Your task to perform on an android device: set default search engine in the chrome app Image 0: 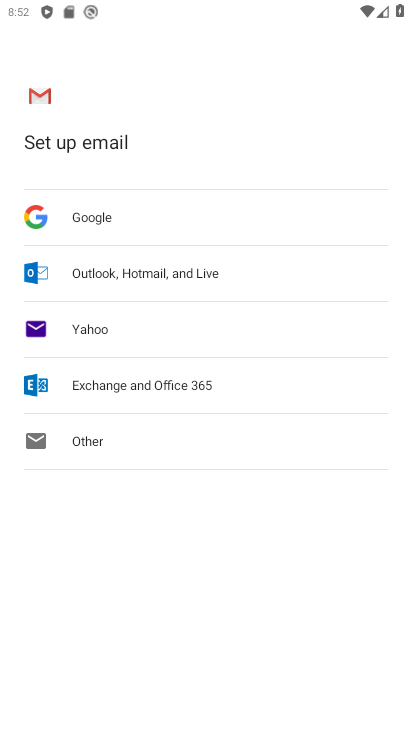
Step 0: press home button
Your task to perform on an android device: set default search engine in the chrome app Image 1: 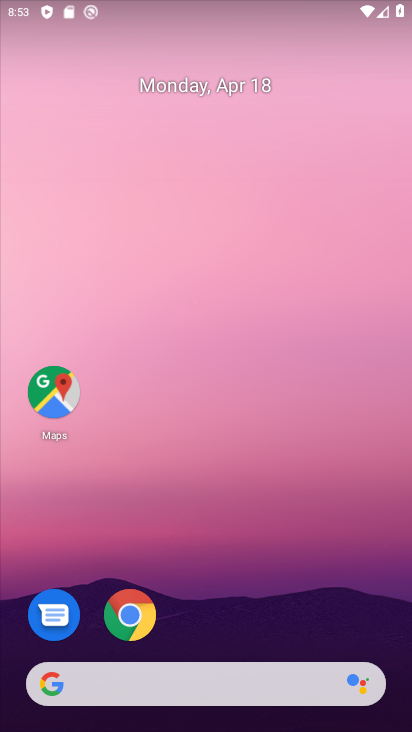
Step 1: click (137, 613)
Your task to perform on an android device: set default search engine in the chrome app Image 2: 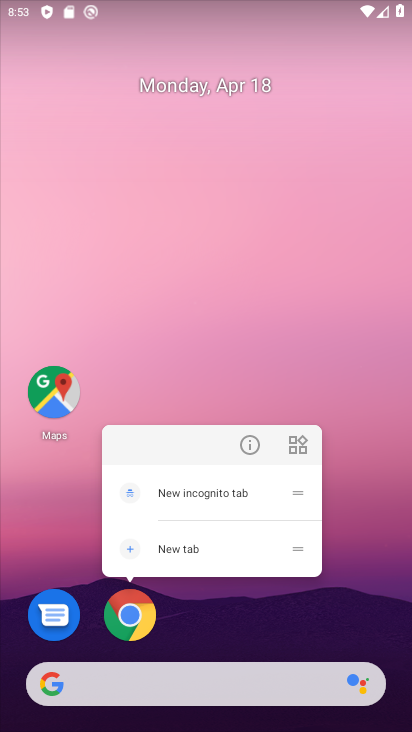
Step 2: click (126, 615)
Your task to perform on an android device: set default search engine in the chrome app Image 3: 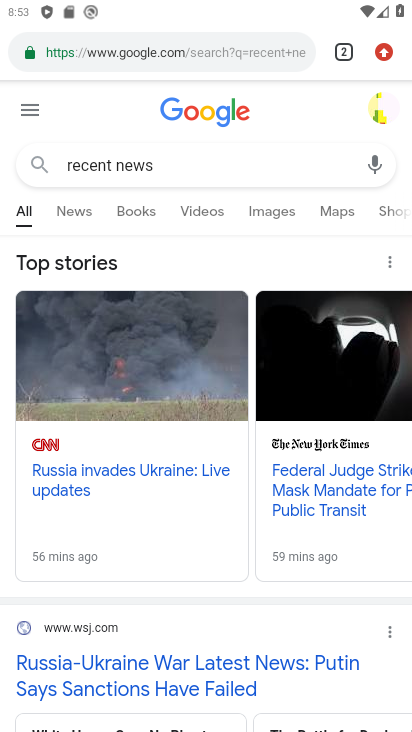
Step 3: click (379, 52)
Your task to perform on an android device: set default search engine in the chrome app Image 4: 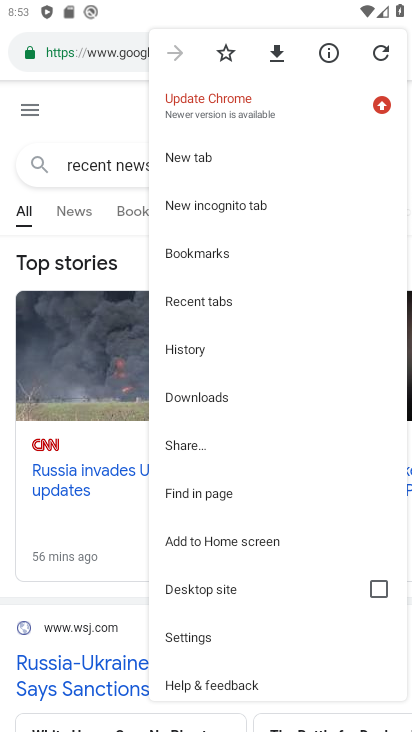
Step 4: click (381, 99)
Your task to perform on an android device: set default search engine in the chrome app Image 5: 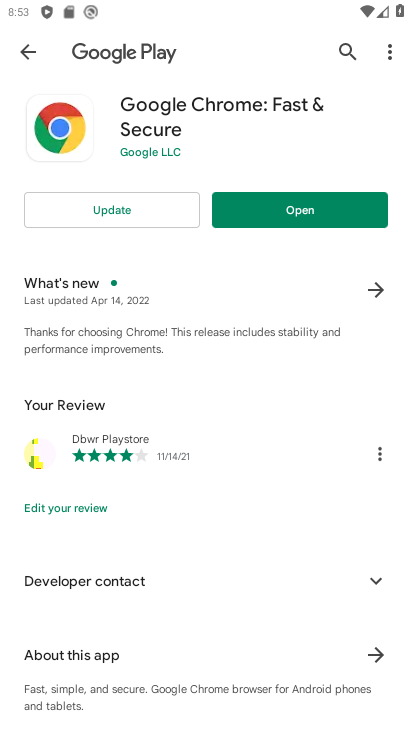
Step 5: click (136, 213)
Your task to perform on an android device: set default search engine in the chrome app Image 6: 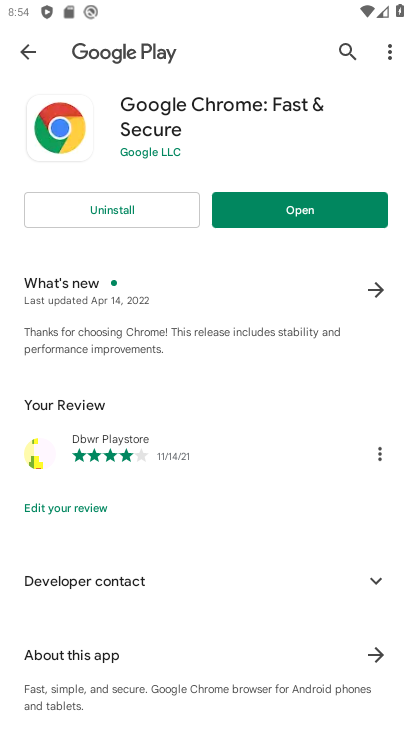
Step 6: click (350, 211)
Your task to perform on an android device: set default search engine in the chrome app Image 7: 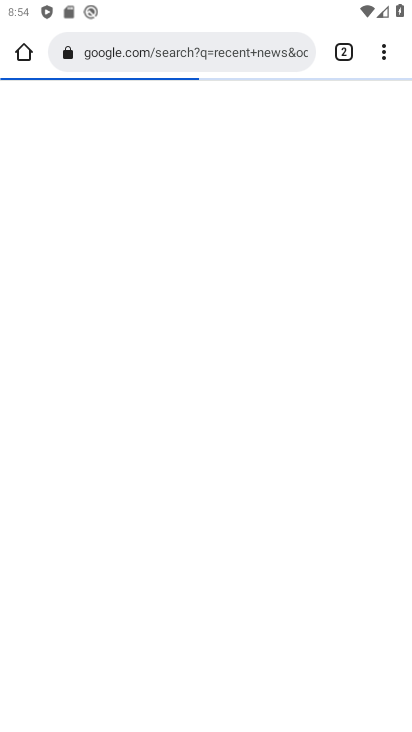
Step 7: click (383, 63)
Your task to perform on an android device: set default search engine in the chrome app Image 8: 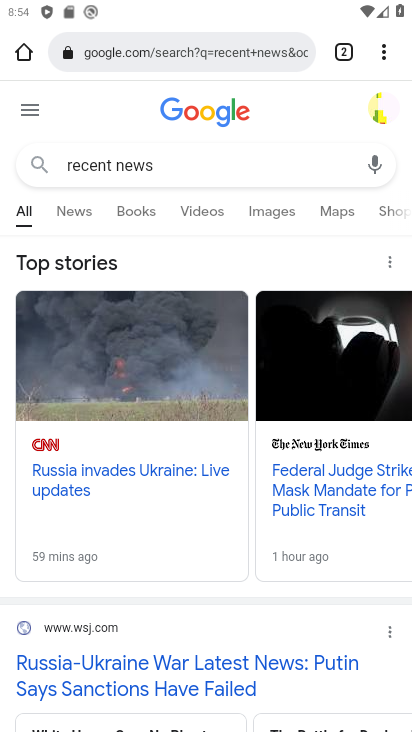
Step 8: click (383, 55)
Your task to perform on an android device: set default search engine in the chrome app Image 9: 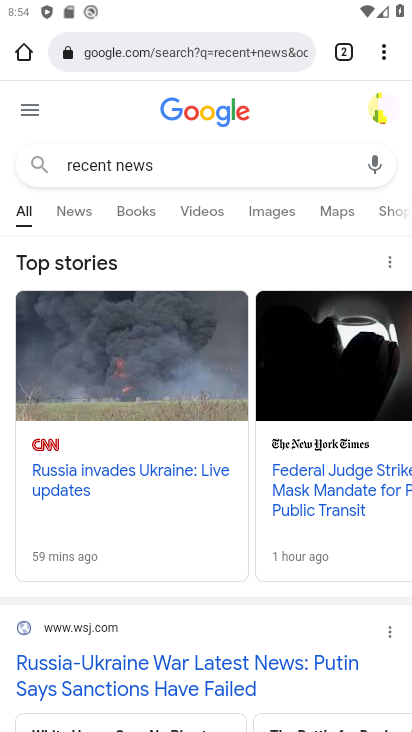
Step 9: click (383, 55)
Your task to perform on an android device: set default search engine in the chrome app Image 10: 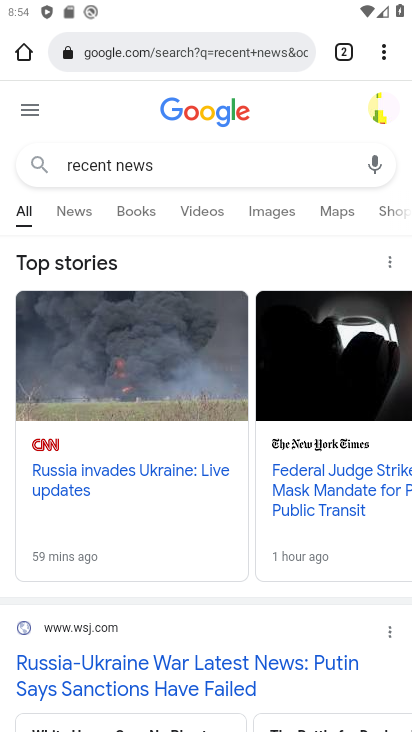
Step 10: click (404, 64)
Your task to perform on an android device: set default search engine in the chrome app Image 11: 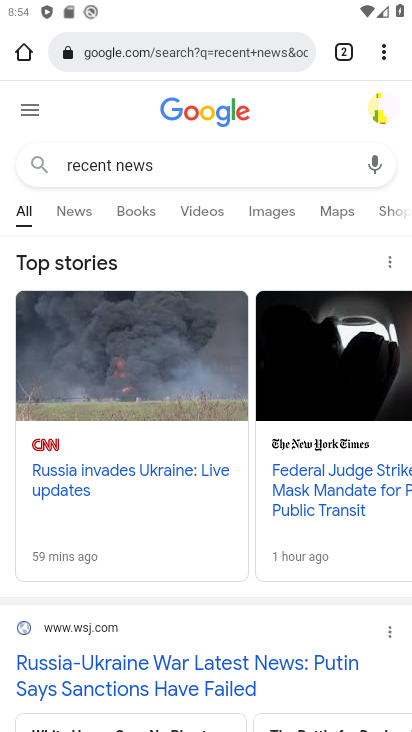
Step 11: click (378, 58)
Your task to perform on an android device: set default search engine in the chrome app Image 12: 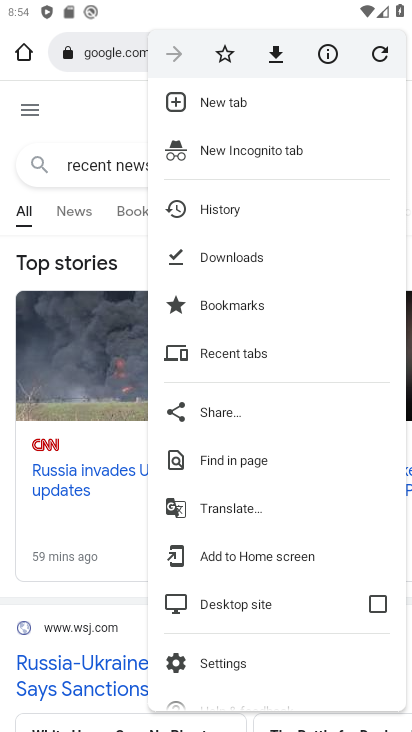
Step 12: click (242, 668)
Your task to perform on an android device: set default search engine in the chrome app Image 13: 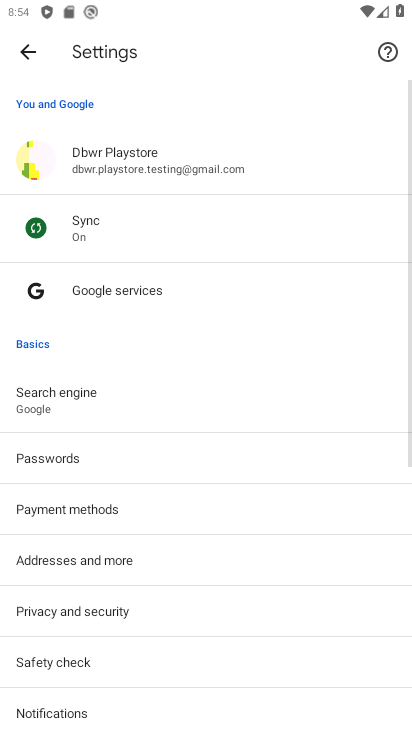
Step 13: click (81, 392)
Your task to perform on an android device: set default search engine in the chrome app Image 14: 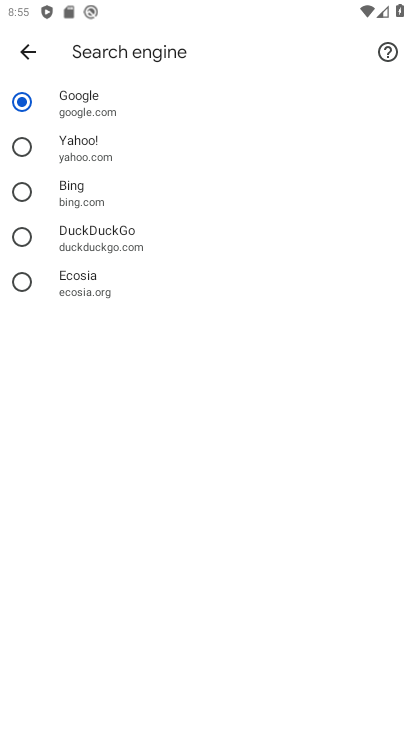
Step 14: click (77, 155)
Your task to perform on an android device: set default search engine in the chrome app Image 15: 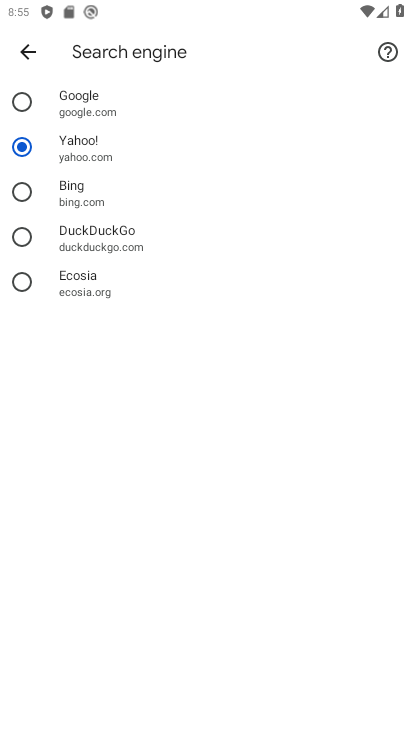
Step 15: task complete